Your task to perform on an android device: turn on the 24-hour format for clock Image 0: 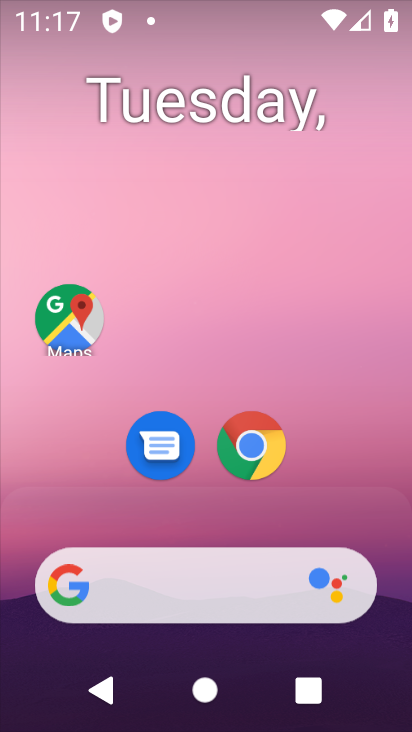
Step 0: drag from (360, 527) to (240, 13)
Your task to perform on an android device: turn on the 24-hour format for clock Image 1: 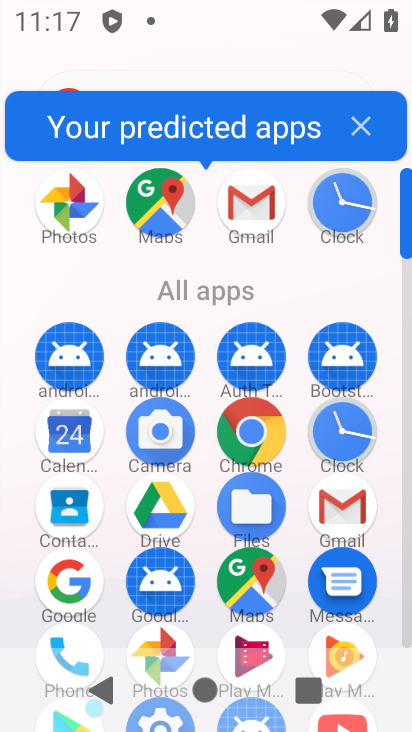
Step 1: drag from (11, 549) to (12, 273)
Your task to perform on an android device: turn on the 24-hour format for clock Image 2: 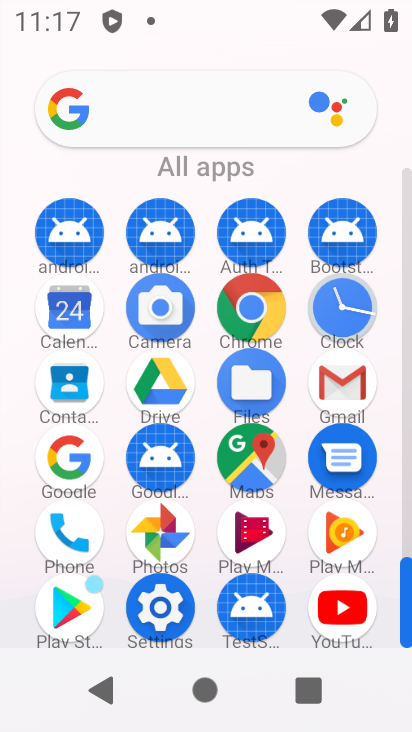
Step 2: click (159, 603)
Your task to perform on an android device: turn on the 24-hour format for clock Image 3: 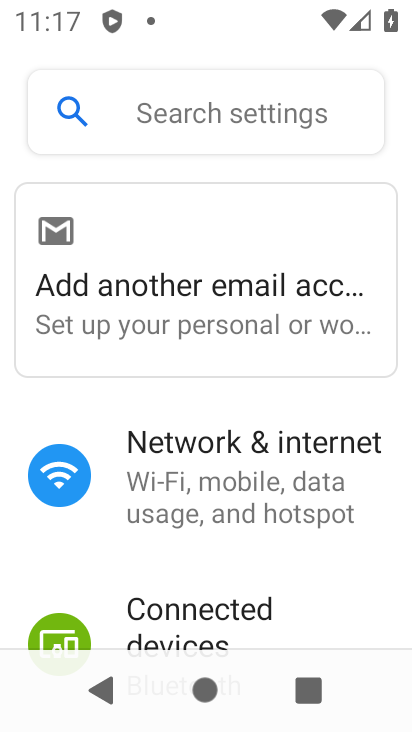
Step 3: drag from (302, 594) to (296, 98)
Your task to perform on an android device: turn on the 24-hour format for clock Image 4: 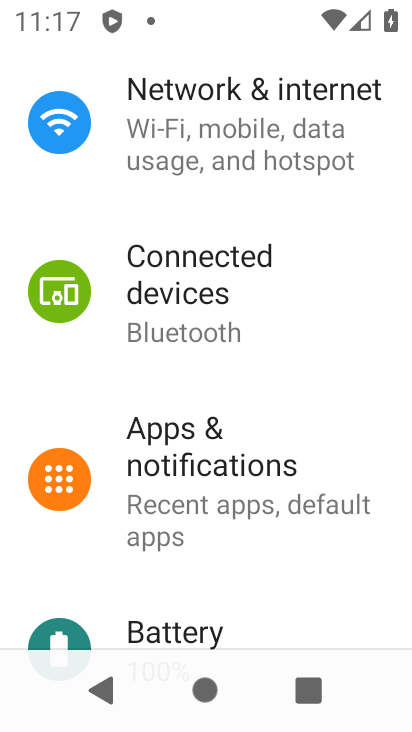
Step 4: drag from (286, 575) to (277, 139)
Your task to perform on an android device: turn on the 24-hour format for clock Image 5: 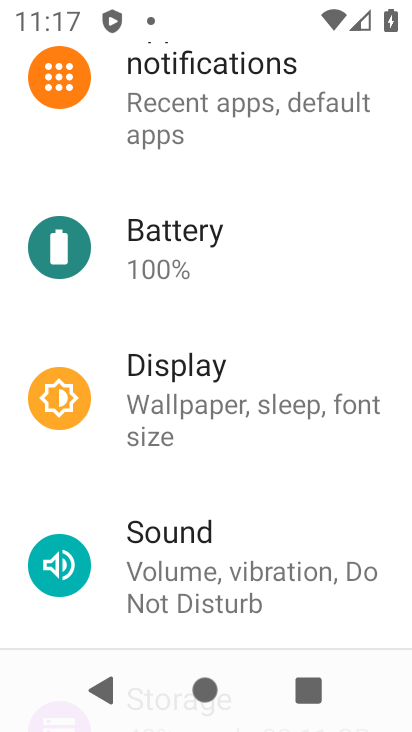
Step 5: press back button
Your task to perform on an android device: turn on the 24-hour format for clock Image 6: 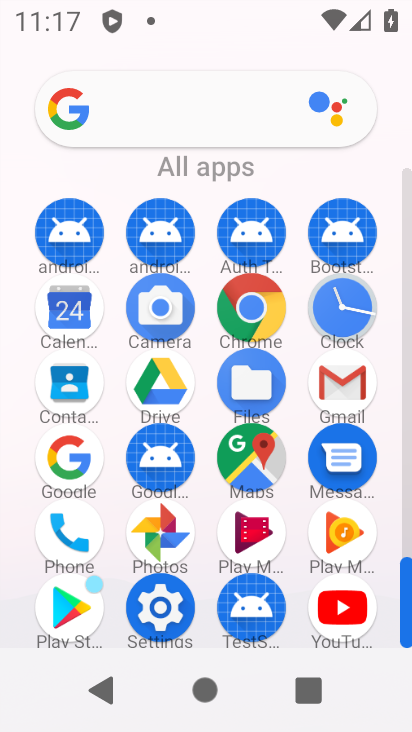
Step 6: press back button
Your task to perform on an android device: turn on the 24-hour format for clock Image 7: 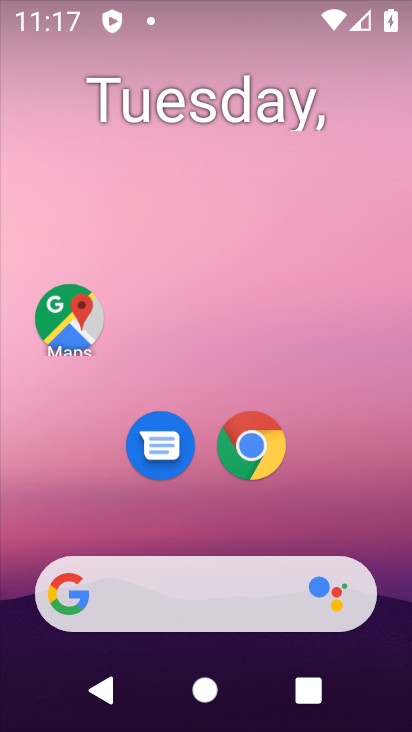
Step 7: drag from (343, 531) to (264, 15)
Your task to perform on an android device: turn on the 24-hour format for clock Image 8: 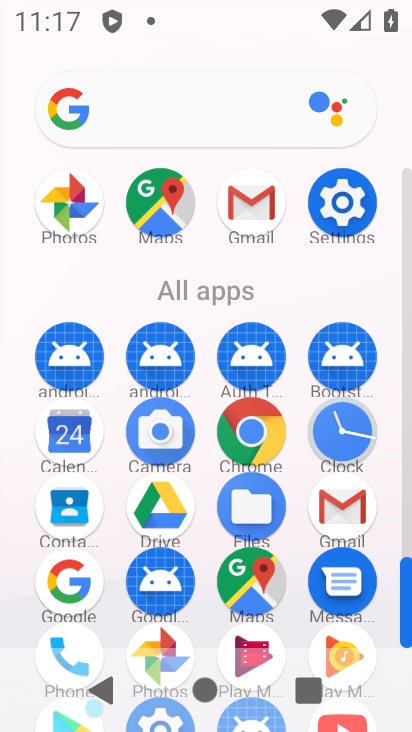
Step 8: drag from (3, 597) to (14, 320)
Your task to perform on an android device: turn on the 24-hour format for clock Image 9: 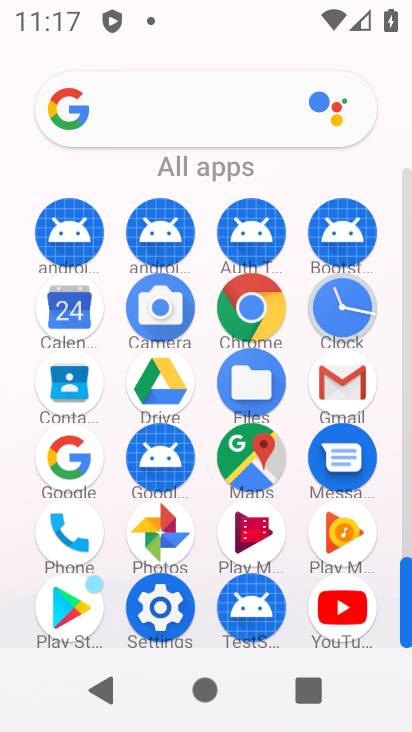
Step 9: click (345, 304)
Your task to perform on an android device: turn on the 24-hour format for clock Image 10: 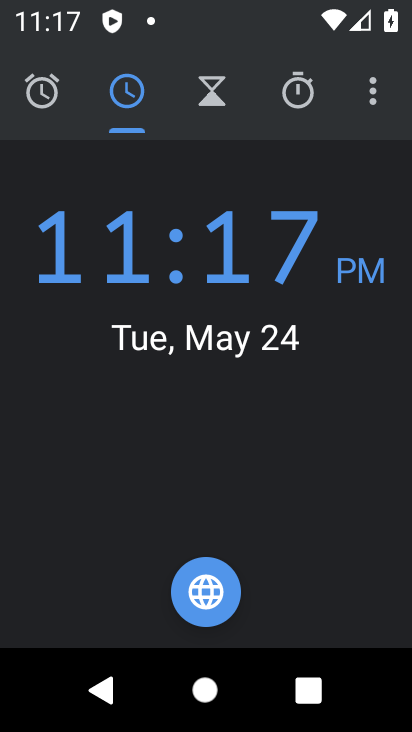
Step 10: drag from (372, 94) to (265, 178)
Your task to perform on an android device: turn on the 24-hour format for clock Image 11: 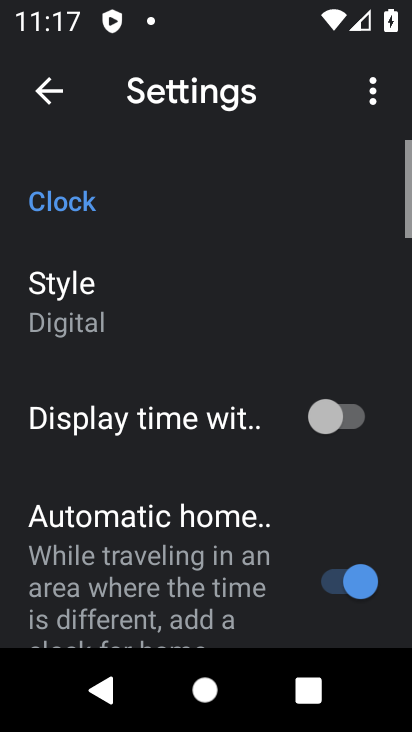
Step 11: drag from (185, 508) to (179, 186)
Your task to perform on an android device: turn on the 24-hour format for clock Image 12: 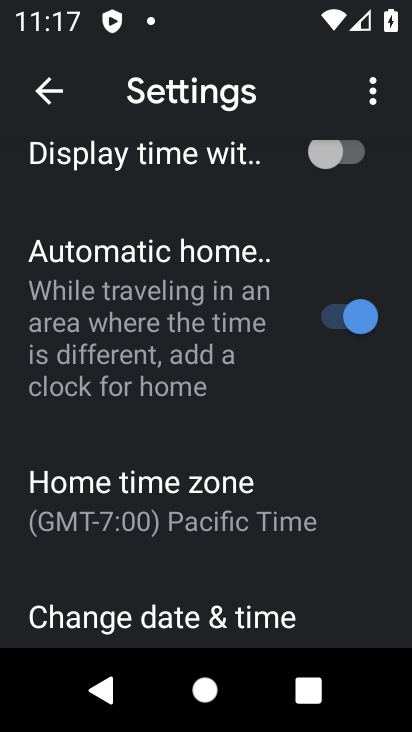
Step 12: drag from (201, 549) to (185, 313)
Your task to perform on an android device: turn on the 24-hour format for clock Image 13: 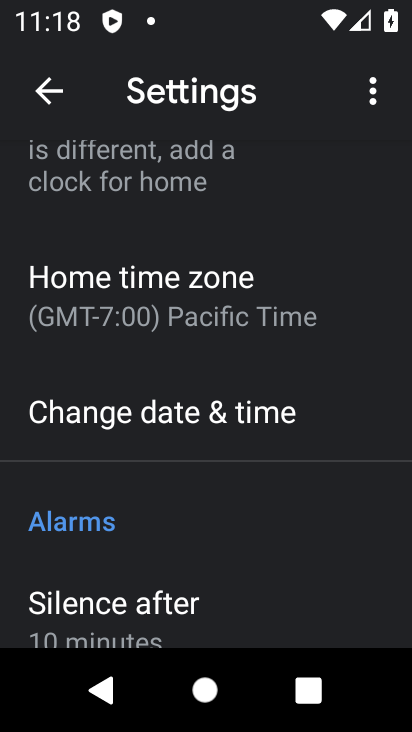
Step 13: click (173, 415)
Your task to perform on an android device: turn on the 24-hour format for clock Image 14: 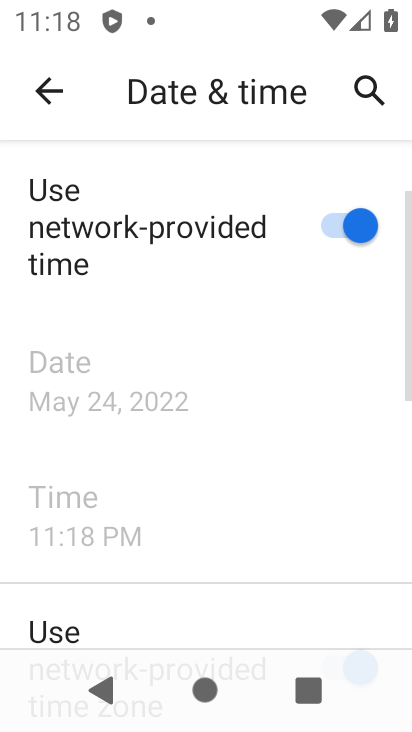
Step 14: drag from (168, 496) to (169, 163)
Your task to perform on an android device: turn on the 24-hour format for clock Image 15: 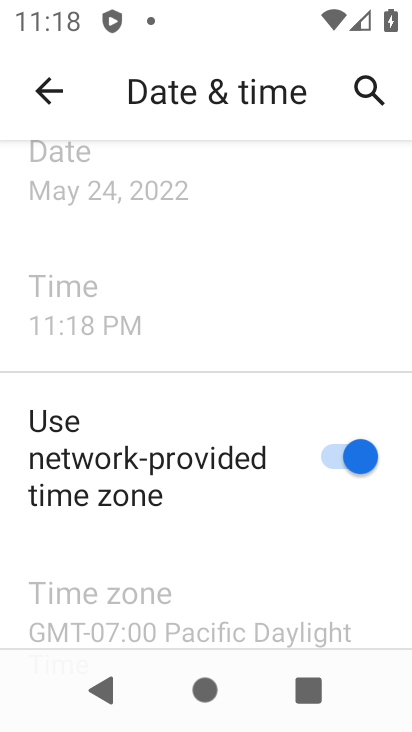
Step 15: drag from (173, 525) to (203, 154)
Your task to perform on an android device: turn on the 24-hour format for clock Image 16: 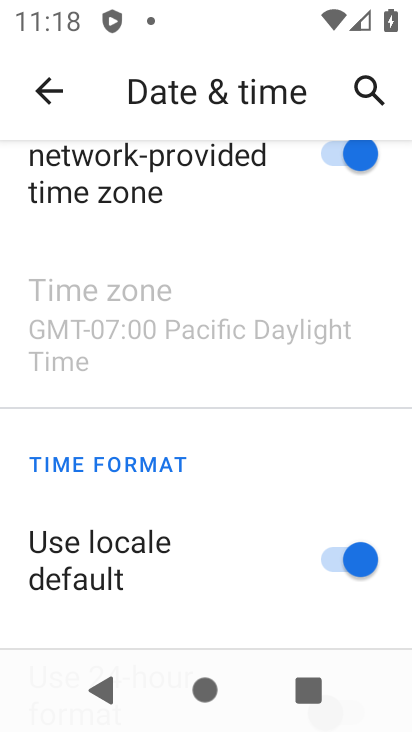
Step 16: drag from (181, 533) to (162, 137)
Your task to perform on an android device: turn on the 24-hour format for clock Image 17: 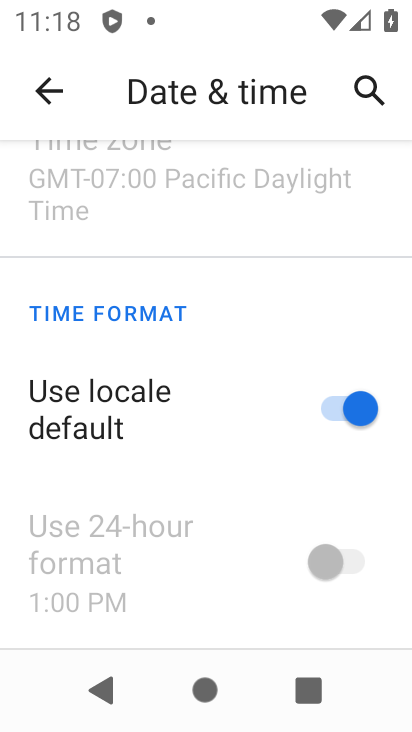
Step 17: drag from (160, 497) to (180, 117)
Your task to perform on an android device: turn on the 24-hour format for clock Image 18: 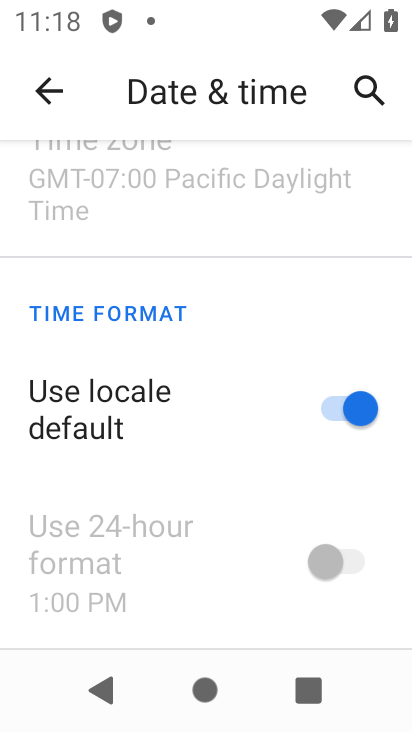
Step 18: click (342, 401)
Your task to perform on an android device: turn on the 24-hour format for clock Image 19: 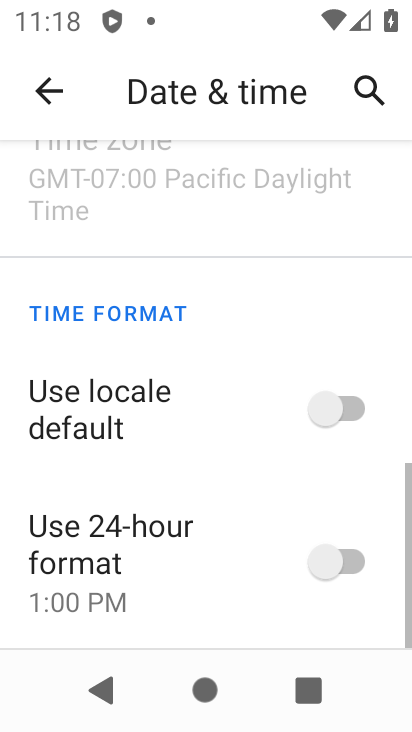
Step 19: click (345, 556)
Your task to perform on an android device: turn on the 24-hour format for clock Image 20: 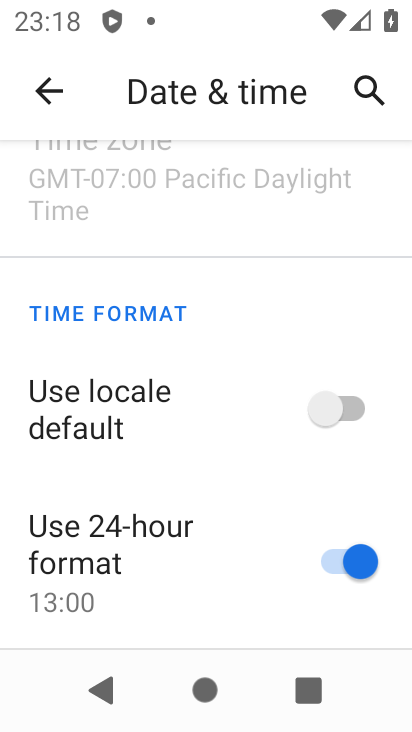
Step 20: task complete